Your task to perform on an android device: Add logitech g pro to the cart on target Image 0: 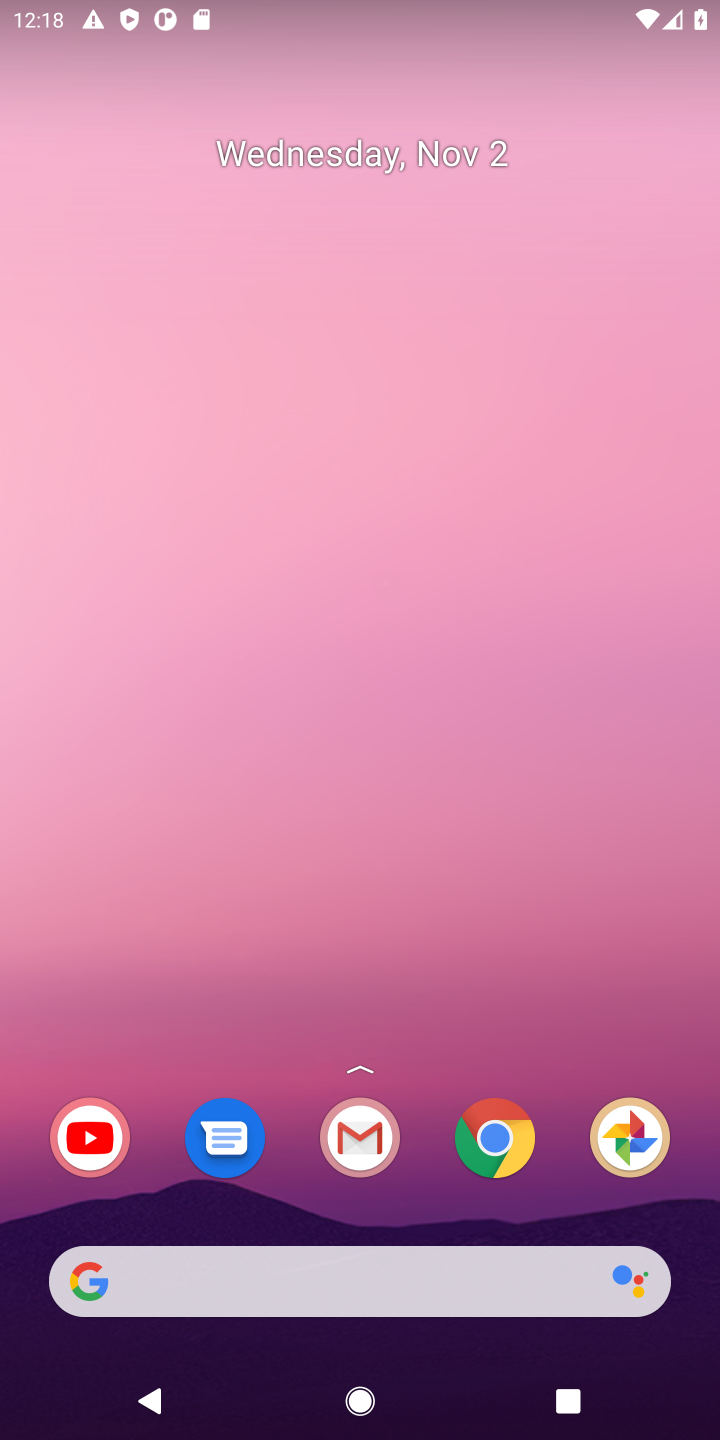
Step 0: press home button
Your task to perform on an android device: Add logitech g pro to the cart on target Image 1: 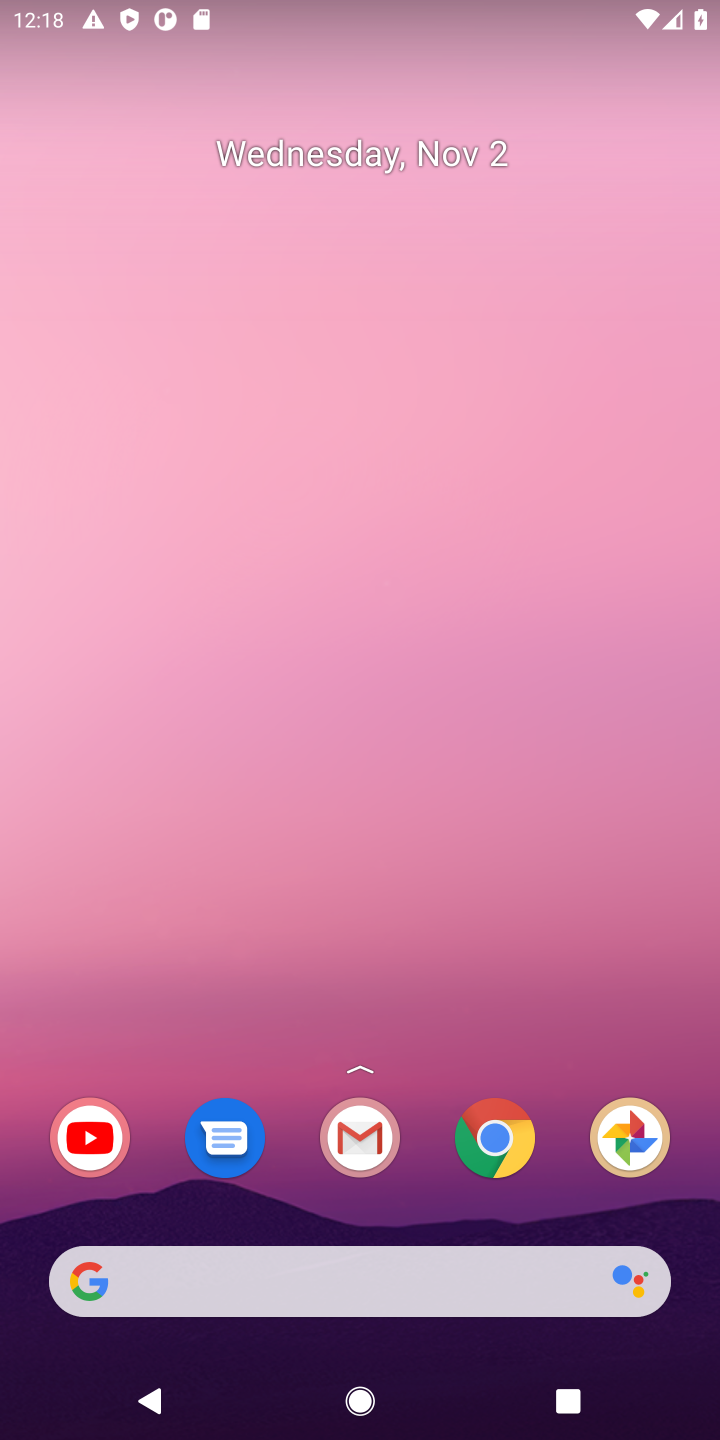
Step 1: click (124, 1270)
Your task to perform on an android device: Add logitech g pro to the cart on target Image 2: 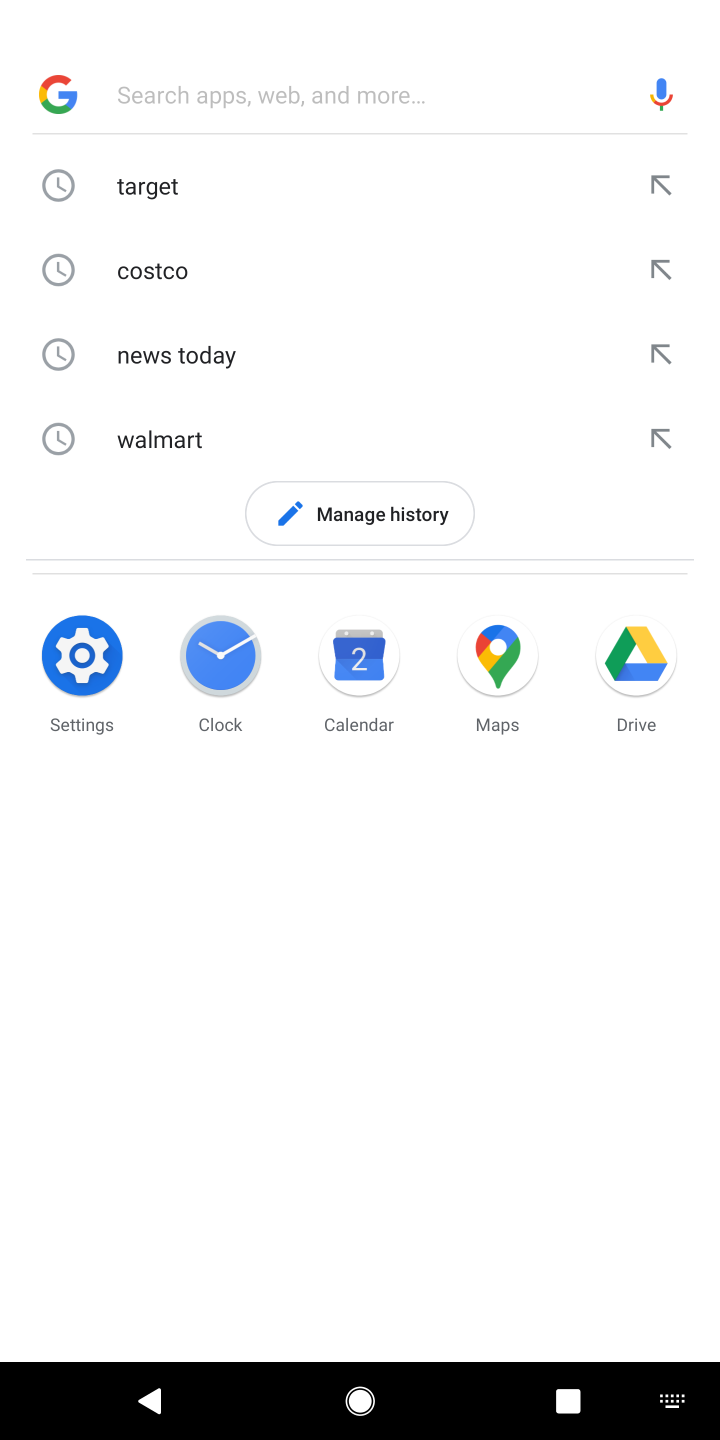
Step 2: type "target"
Your task to perform on an android device: Add logitech g pro to the cart on target Image 3: 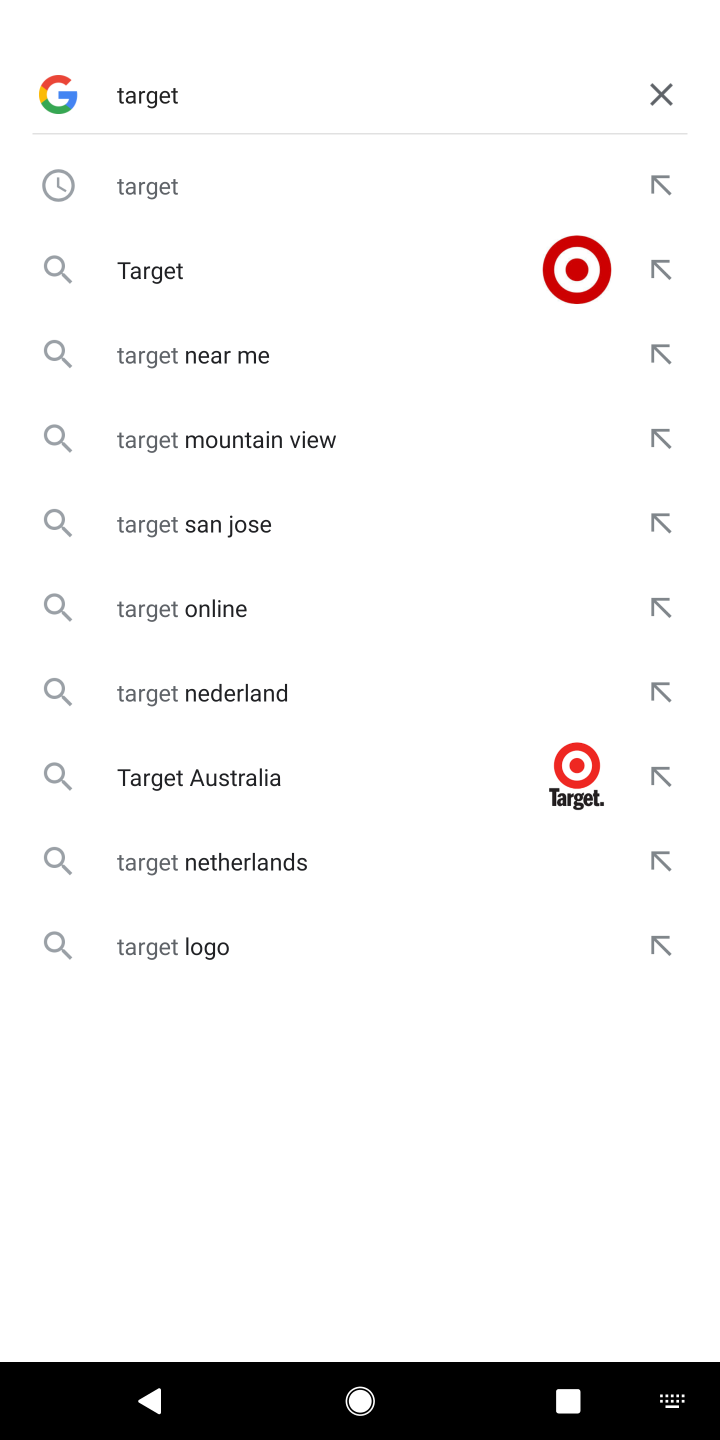
Step 3: press enter
Your task to perform on an android device: Add logitech g pro to the cart on target Image 4: 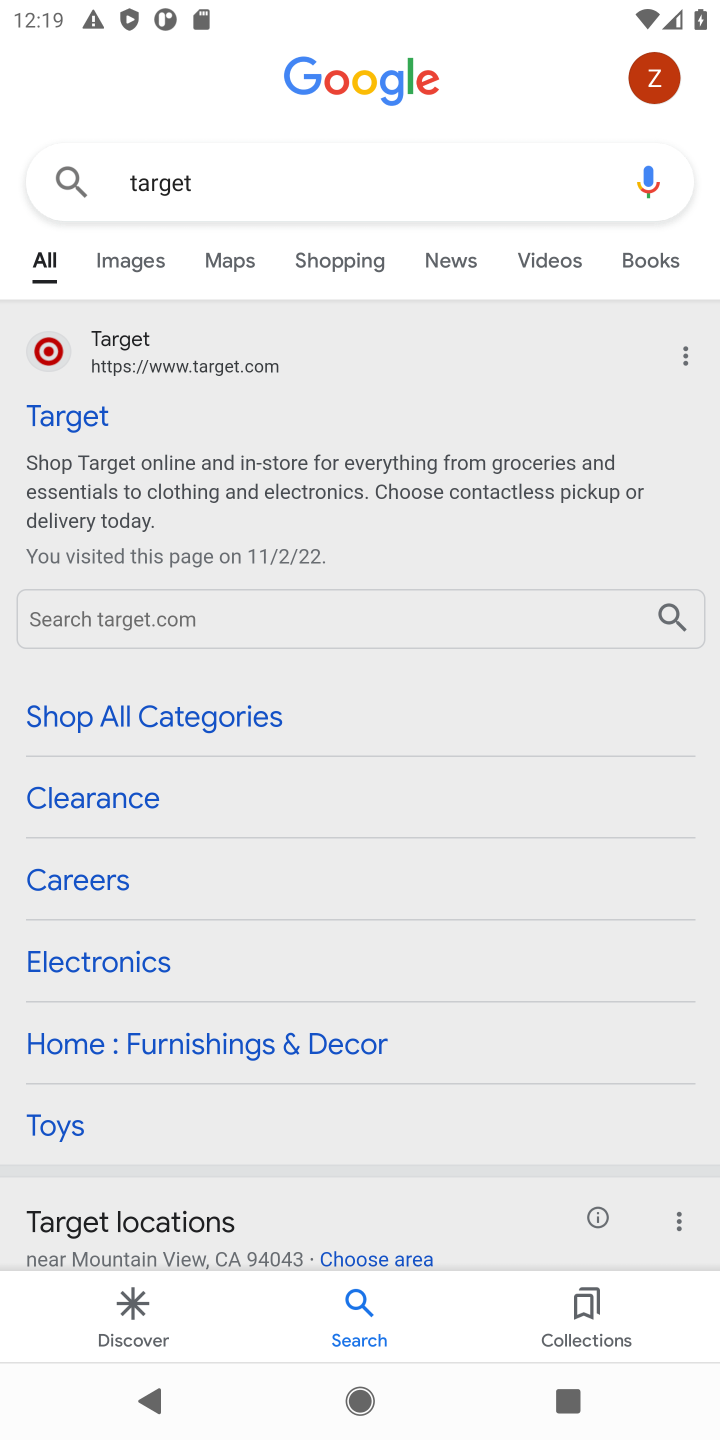
Step 4: click (59, 413)
Your task to perform on an android device: Add logitech g pro to the cart on target Image 5: 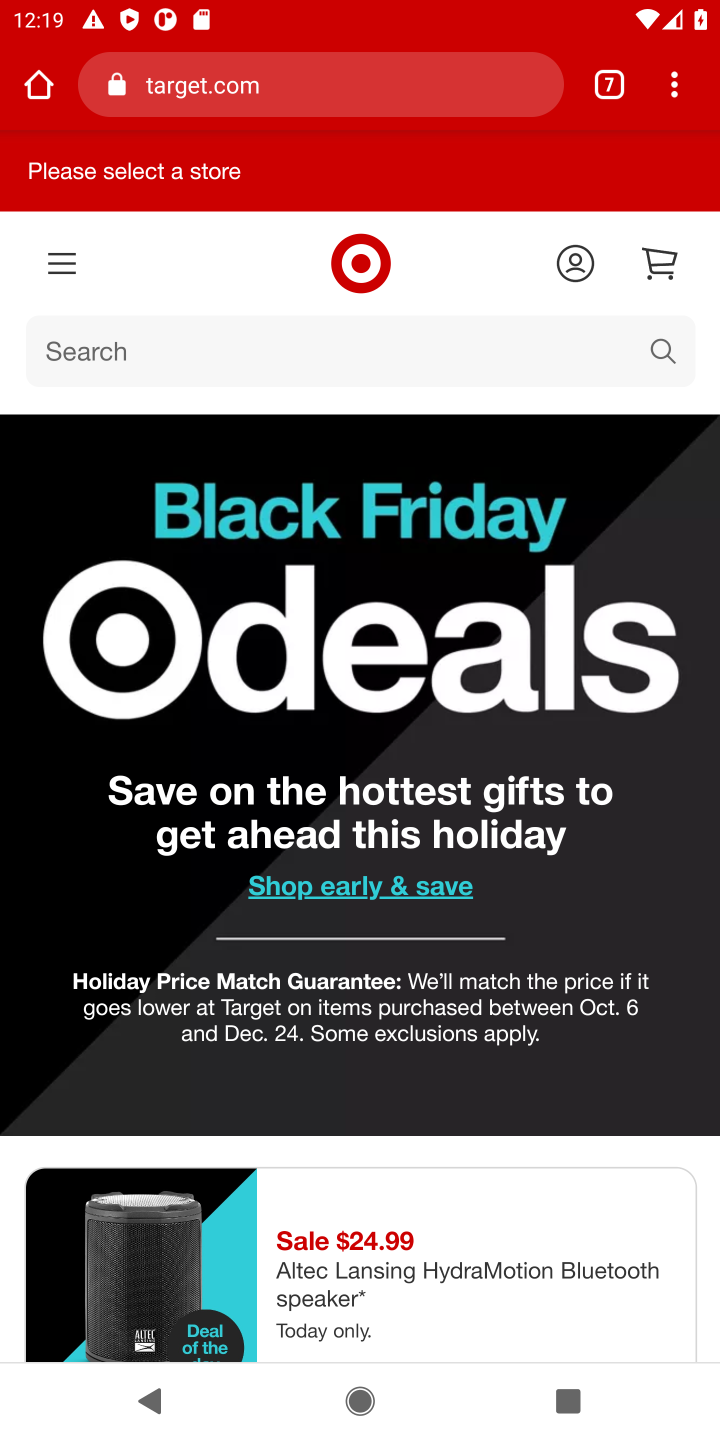
Step 5: press home button
Your task to perform on an android device: Add logitech g pro to the cart on target Image 6: 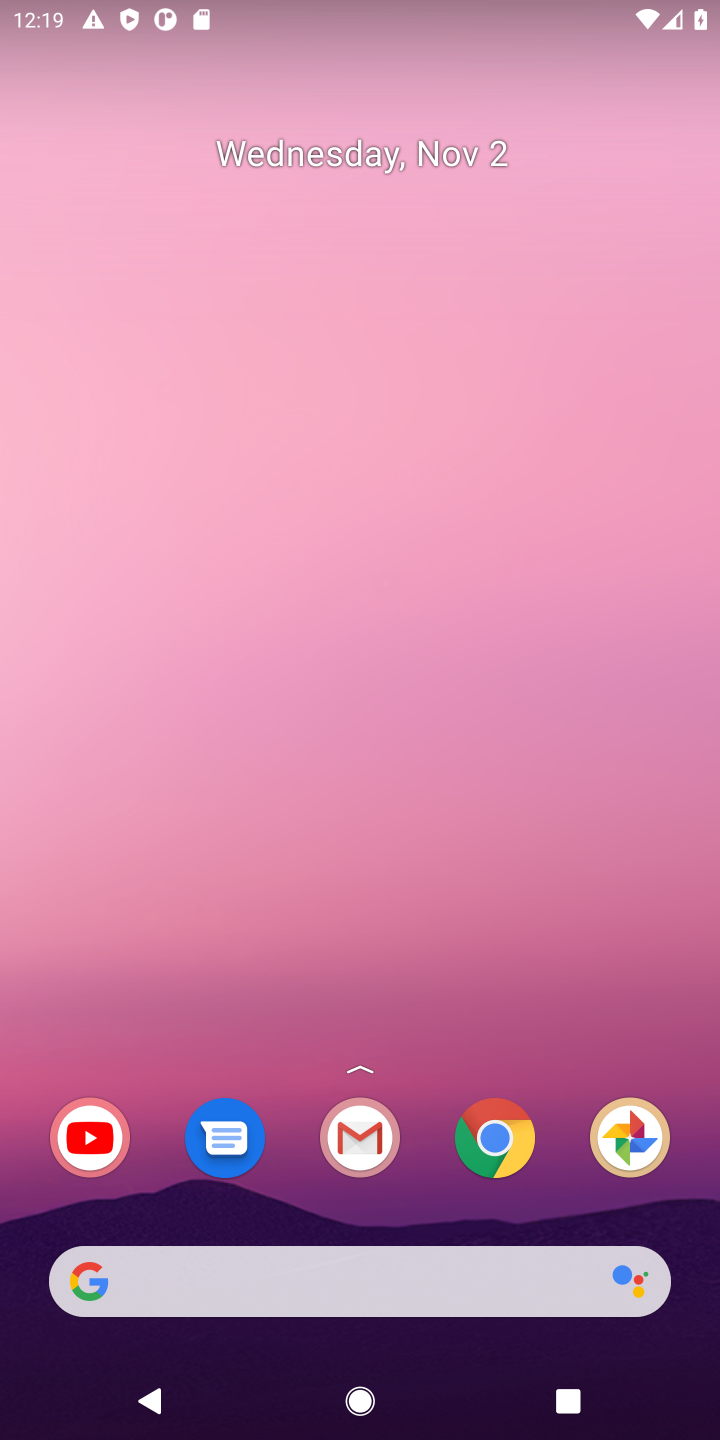
Step 6: click (164, 1275)
Your task to perform on an android device: Add logitech g pro to the cart on target Image 7: 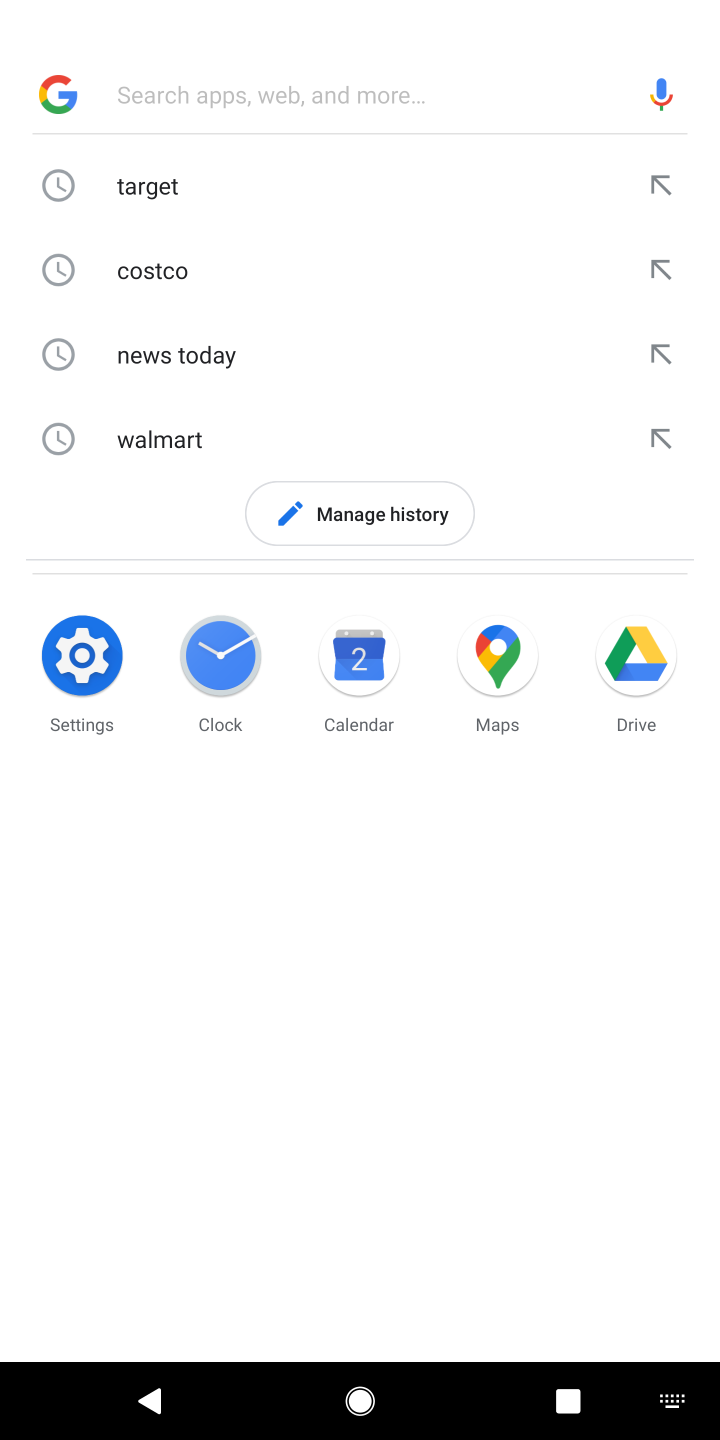
Step 7: click (156, 187)
Your task to perform on an android device: Add logitech g pro to the cart on target Image 8: 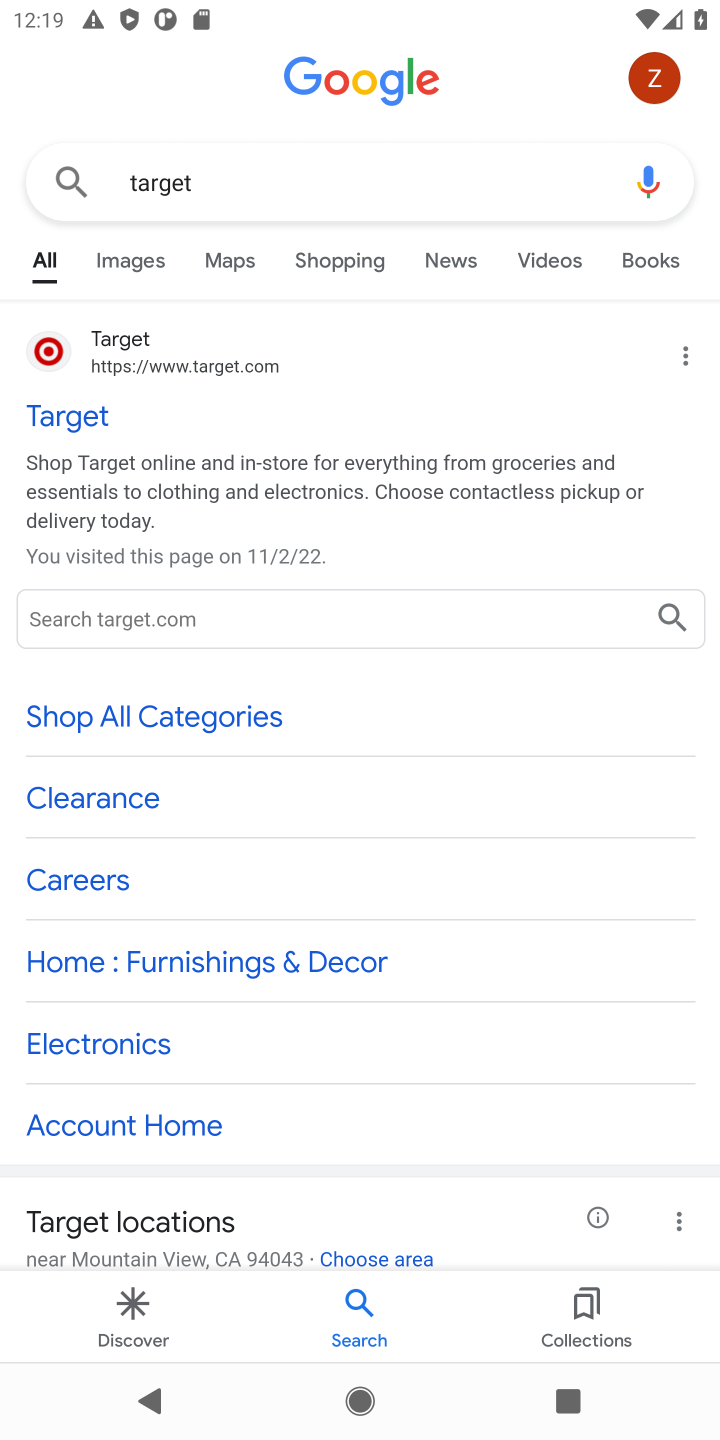
Step 8: click (54, 410)
Your task to perform on an android device: Add logitech g pro to the cart on target Image 9: 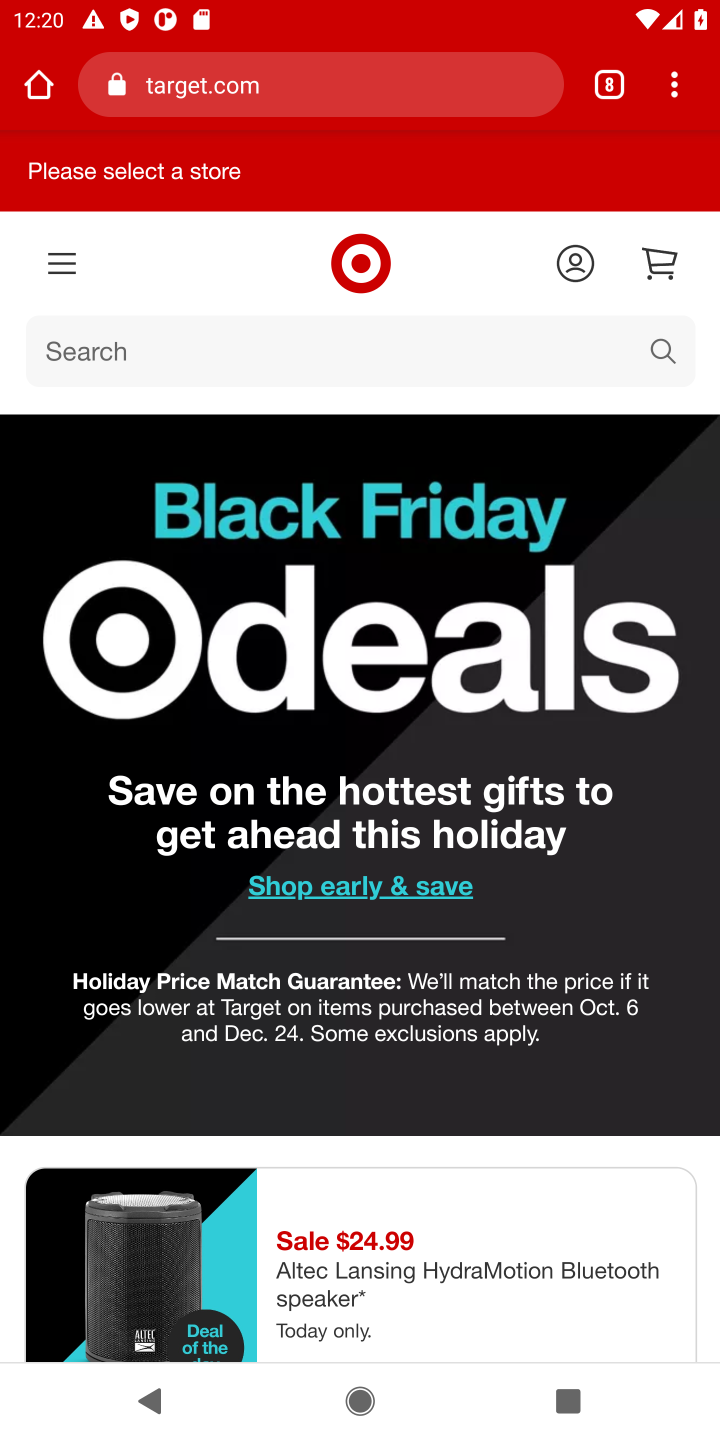
Step 9: click (196, 352)
Your task to perform on an android device: Add logitech g pro to the cart on target Image 10: 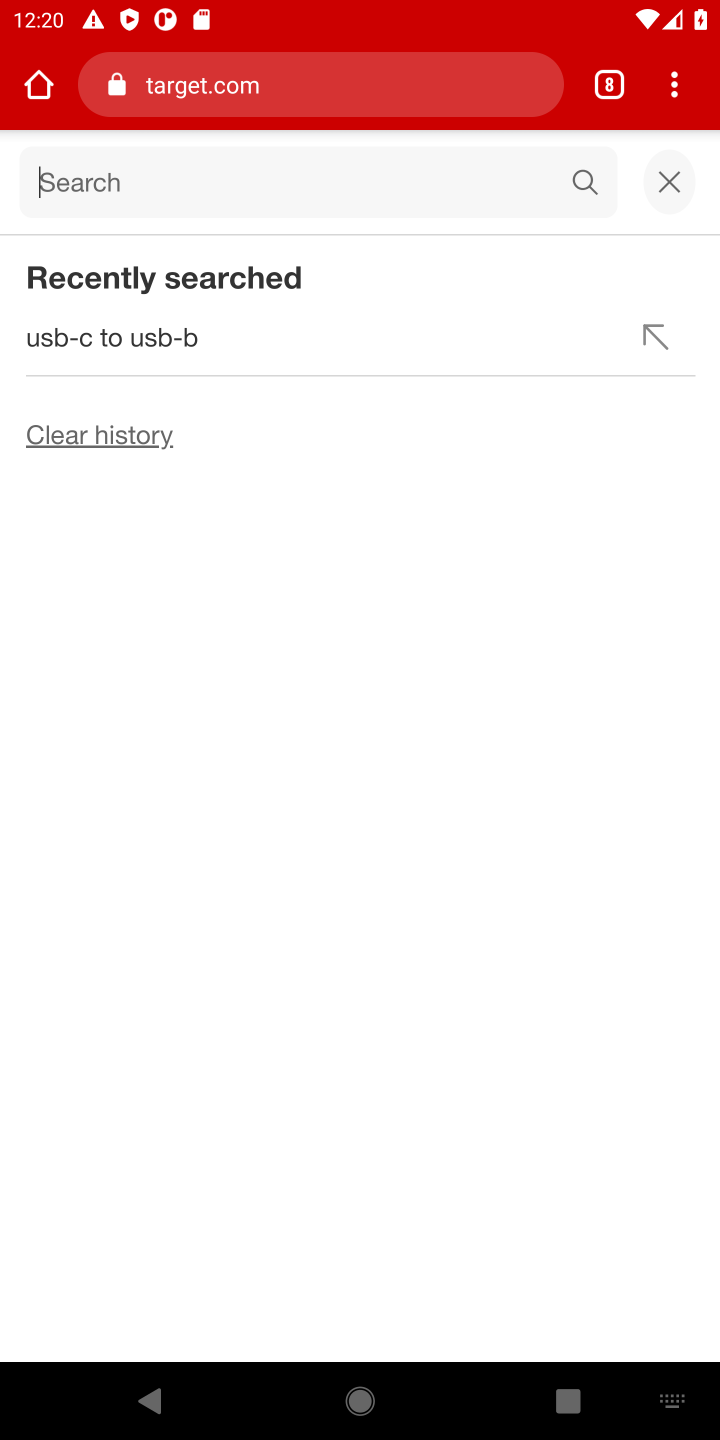
Step 10: press enter
Your task to perform on an android device: Add logitech g pro to the cart on target Image 11: 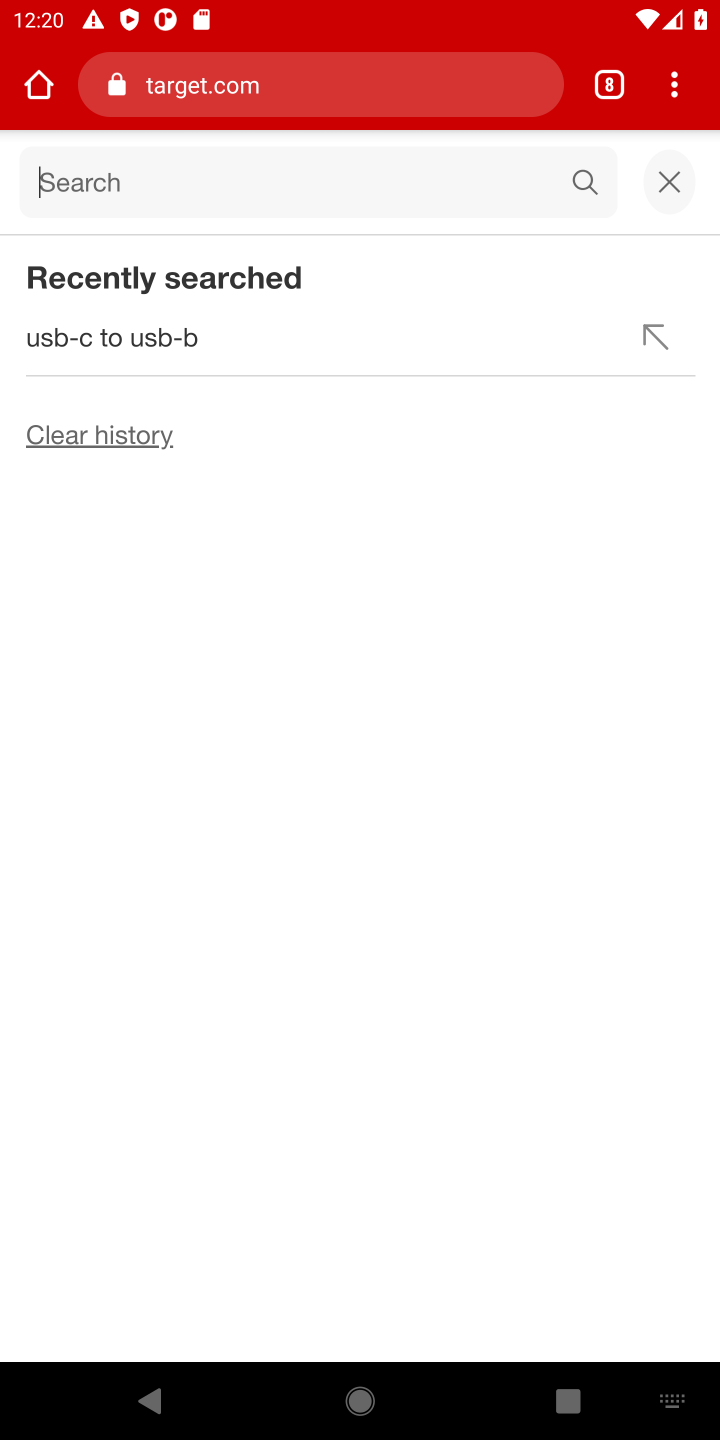
Step 11: type "logitech g pro"
Your task to perform on an android device: Add logitech g pro to the cart on target Image 12: 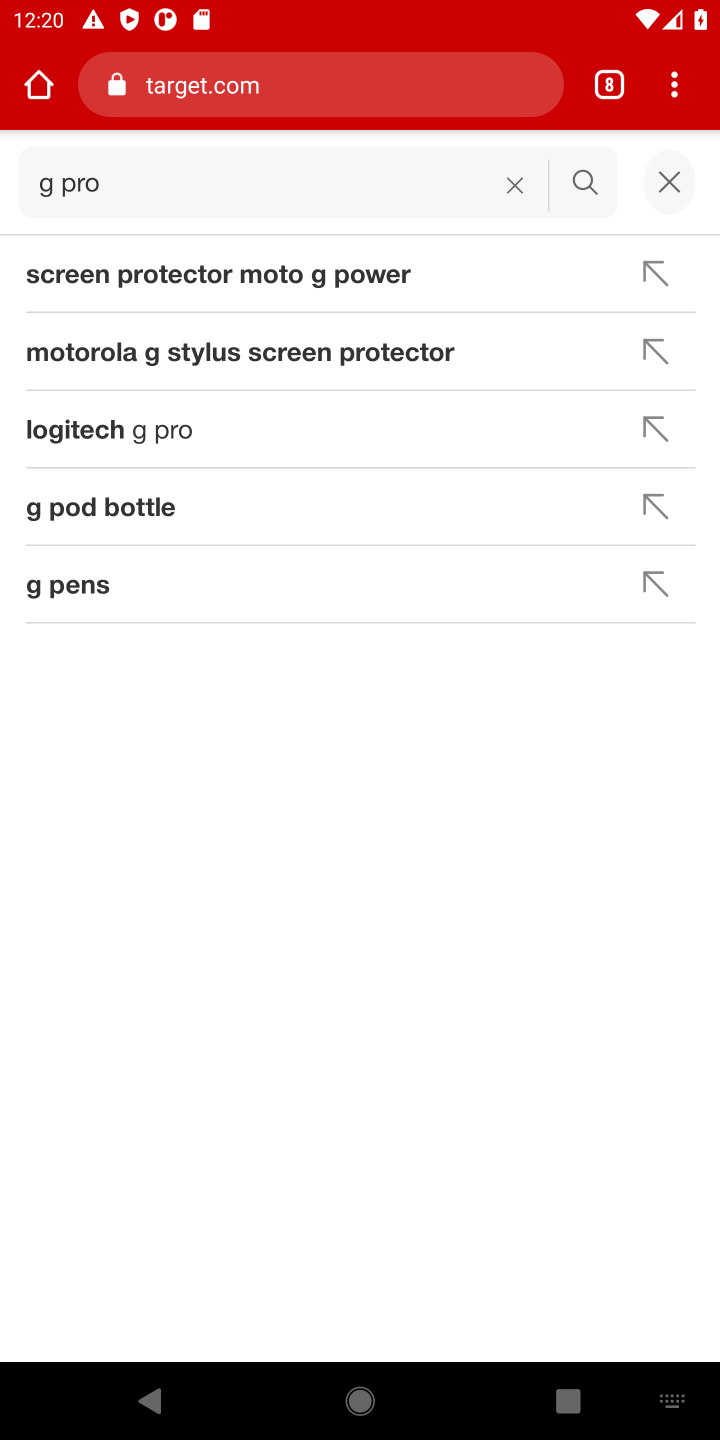
Step 12: press enter
Your task to perform on an android device: Add logitech g pro to the cart on target Image 13: 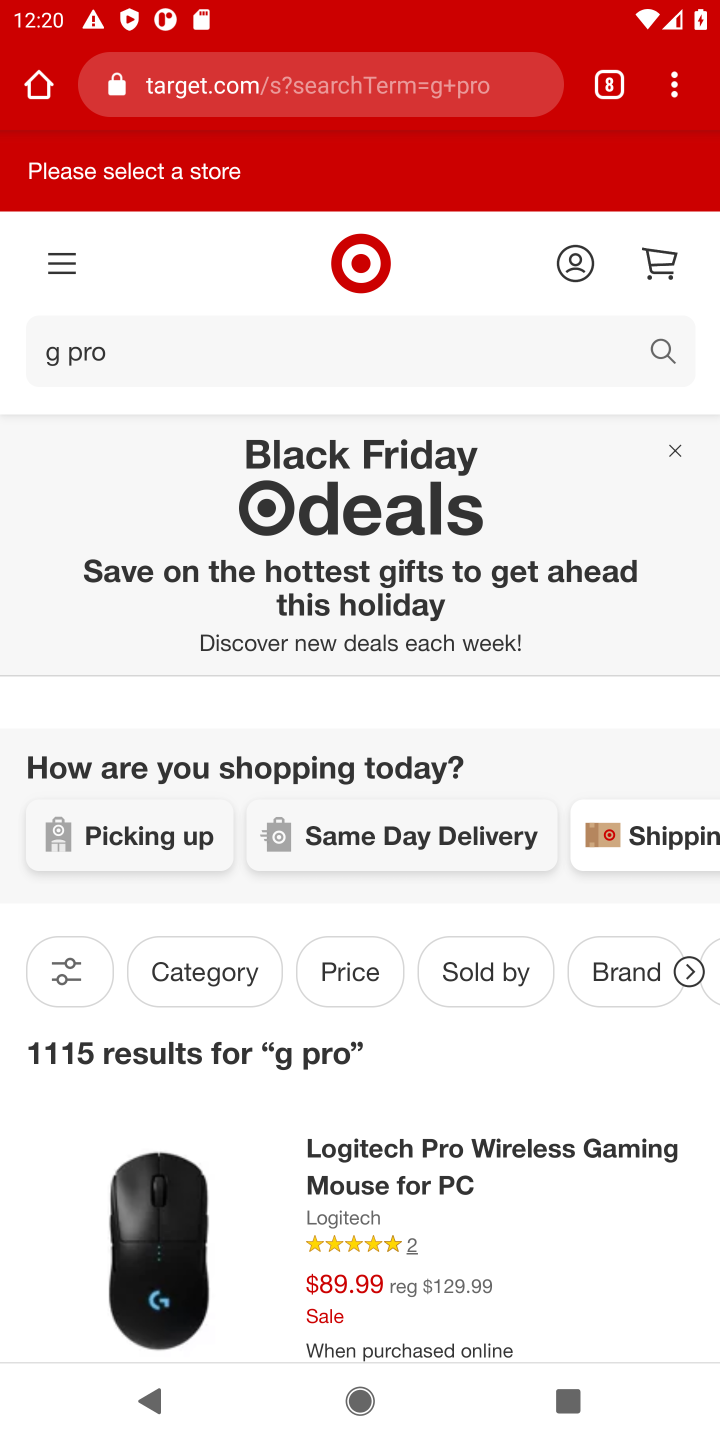
Step 13: drag from (408, 1197) to (441, 1047)
Your task to perform on an android device: Add logitech g pro to the cart on target Image 14: 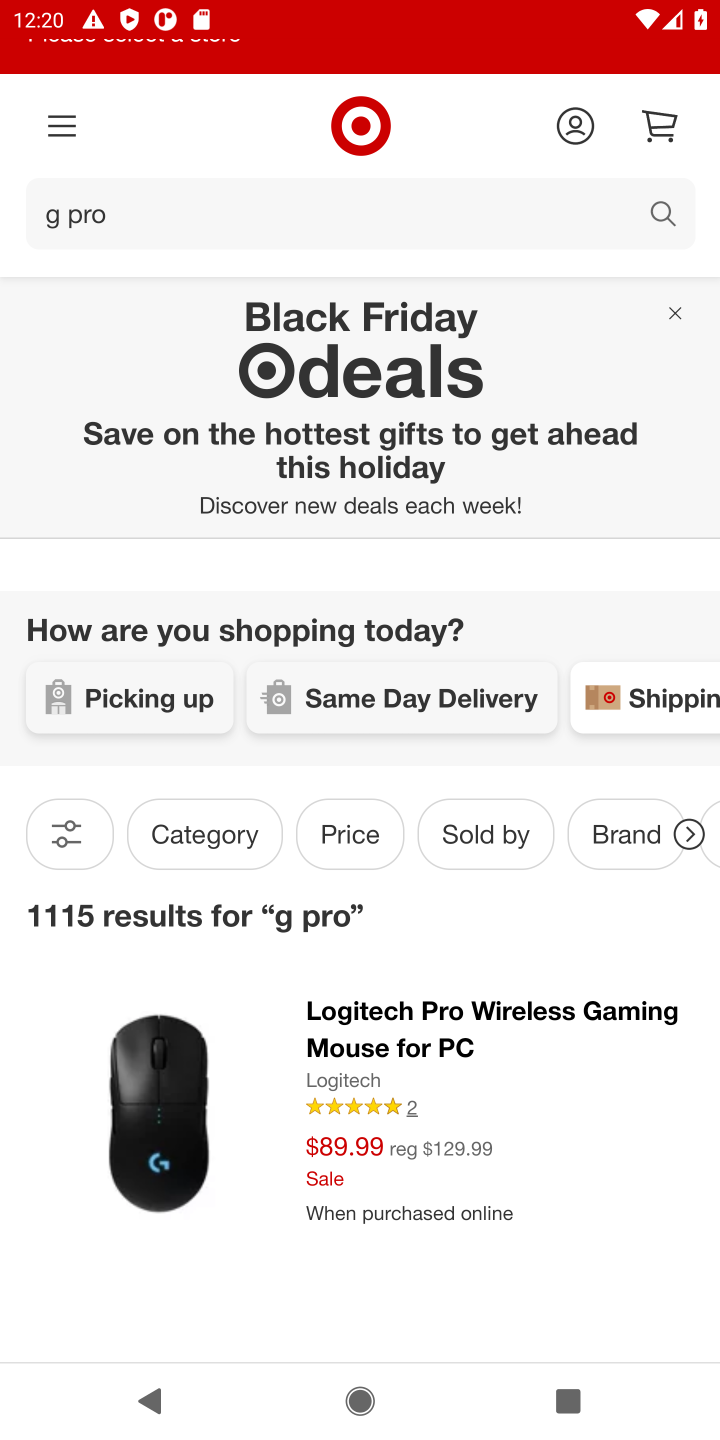
Step 14: click (415, 1040)
Your task to perform on an android device: Add logitech g pro to the cart on target Image 15: 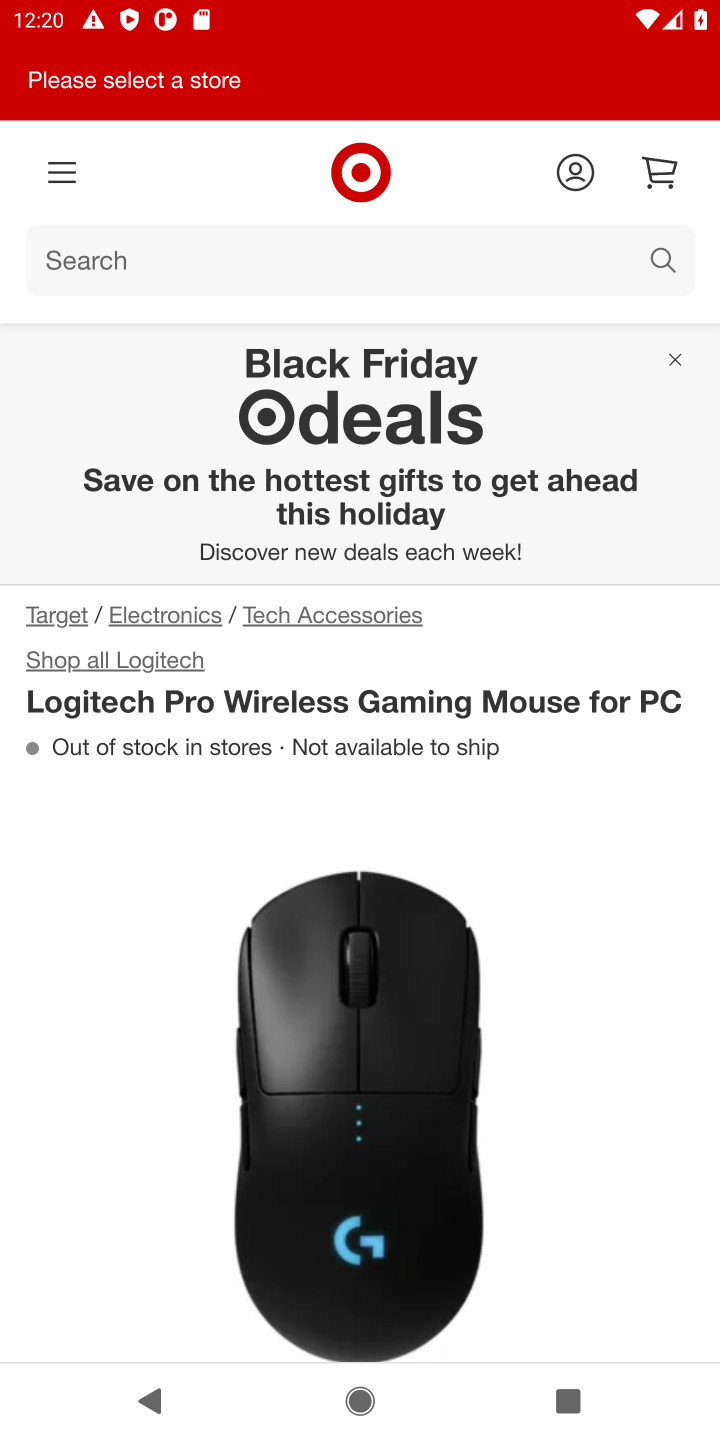
Step 15: drag from (415, 1052) to (422, 521)
Your task to perform on an android device: Add logitech g pro to the cart on target Image 16: 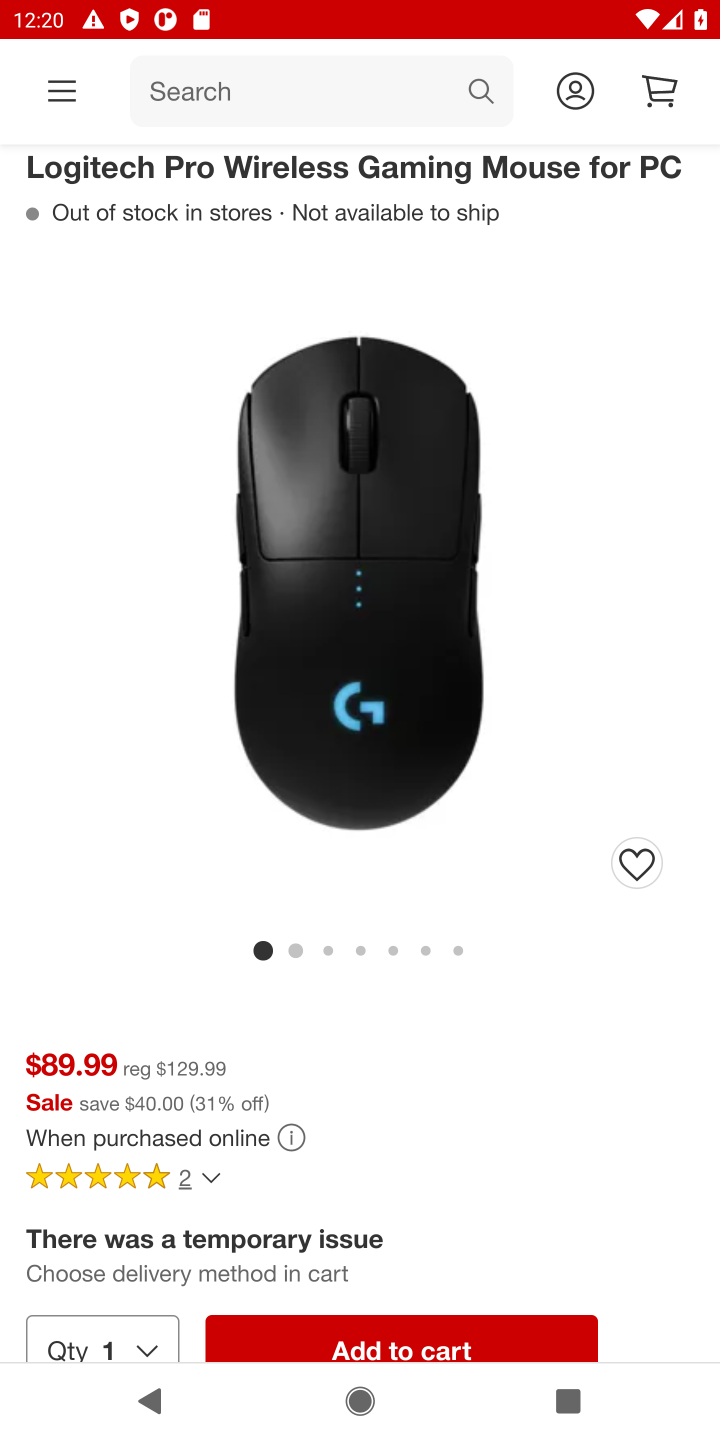
Step 16: drag from (431, 878) to (436, 479)
Your task to perform on an android device: Add logitech g pro to the cart on target Image 17: 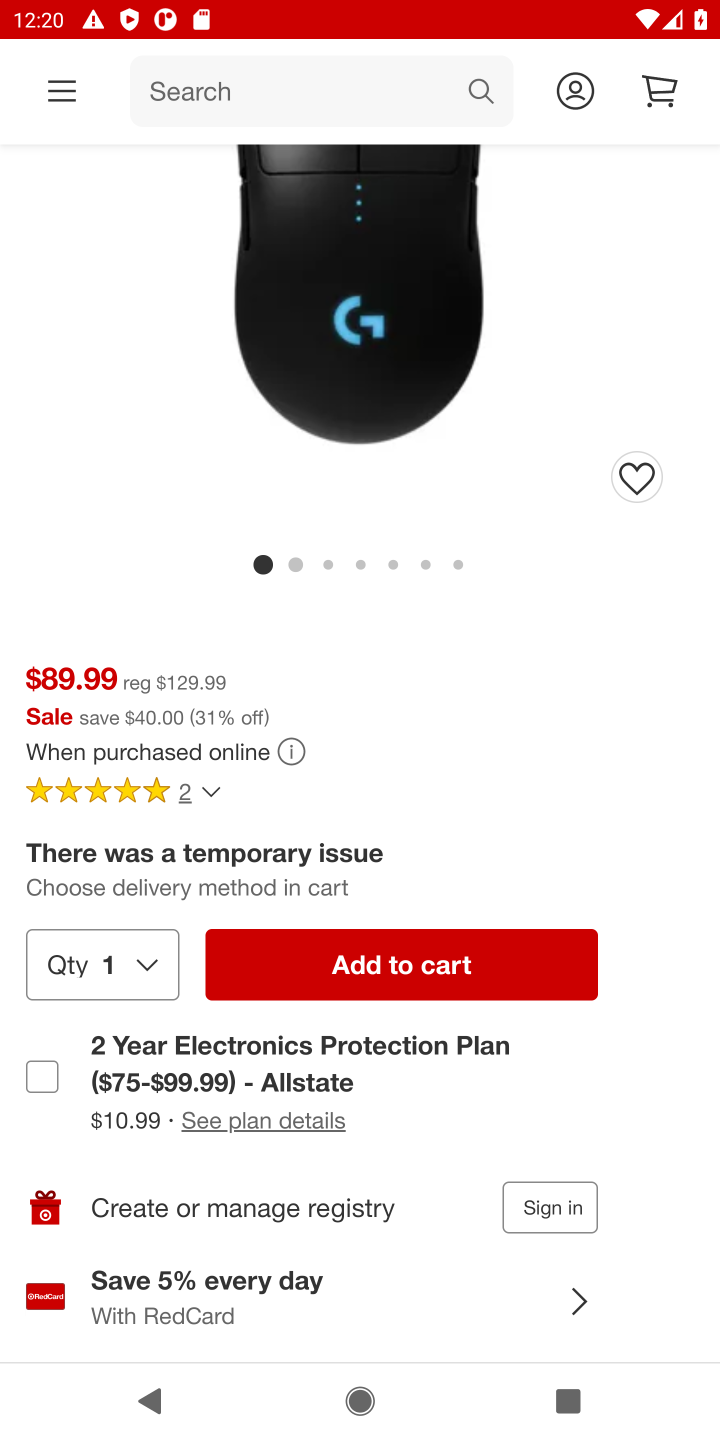
Step 17: click (349, 972)
Your task to perform on an android device: Add logitech g pro to the cart on target Image 18: 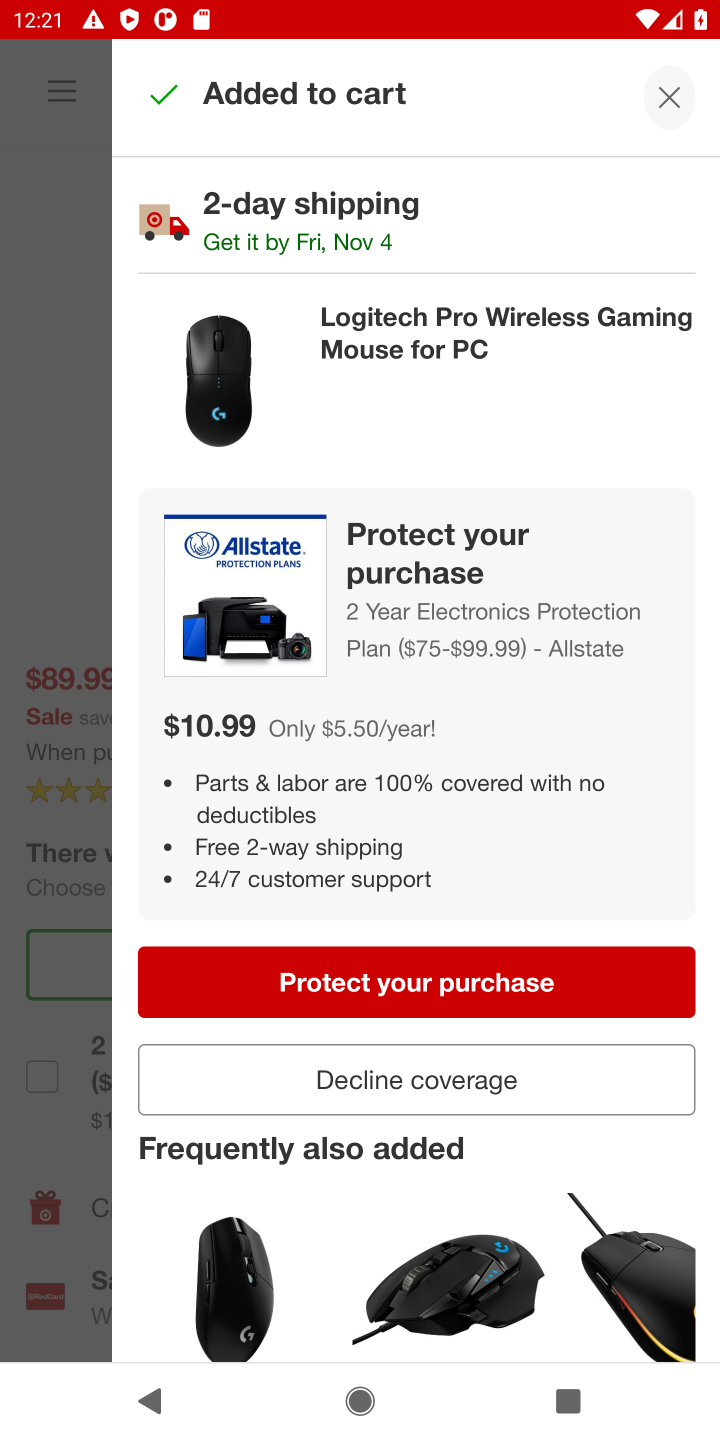
Step 18: task complete